Your task to perform on an android device: turn off picture-in-picture Image 0: 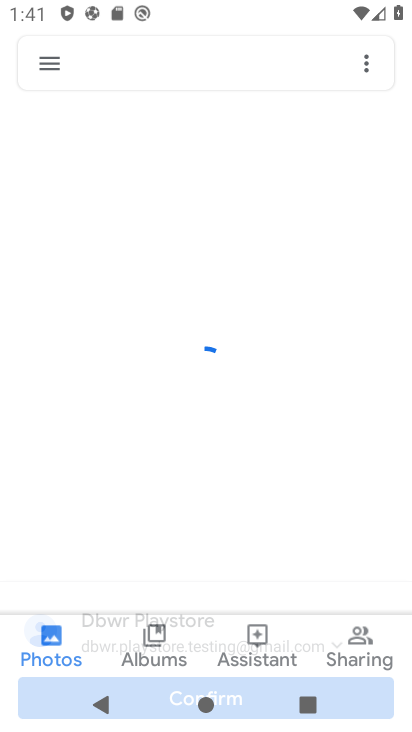
Step 0: press home button
Your task to perform on an android device: turn off picture-in-picture Image 1: 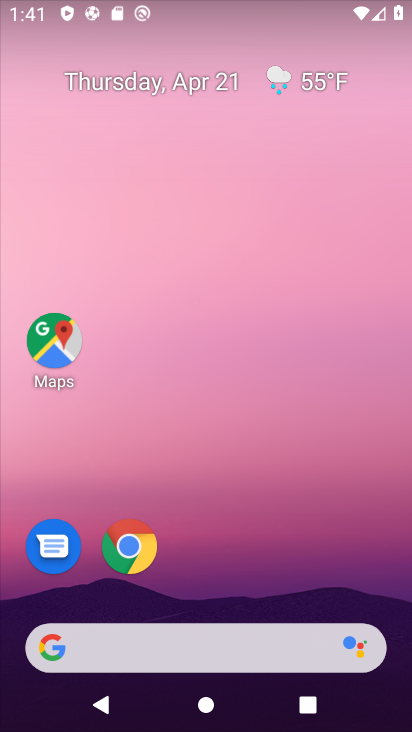
Step 1: click (128, 564)
Your task to perform on an android device: turn off picture-in-picture Image 2: 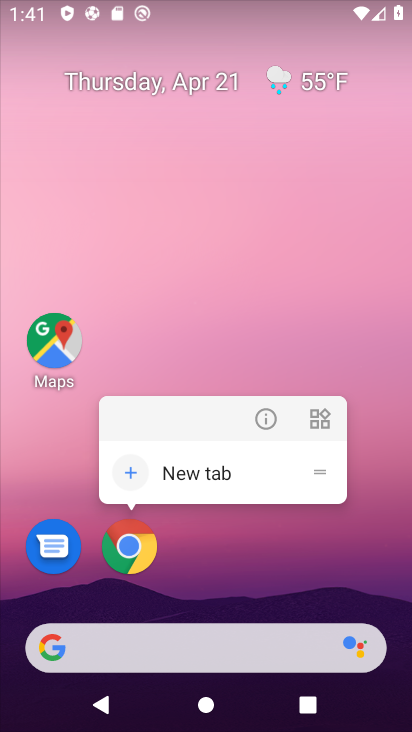
Step 2: click (271, 417)
Your task to perform on an android device: turn off picture-in-picture Image 3: 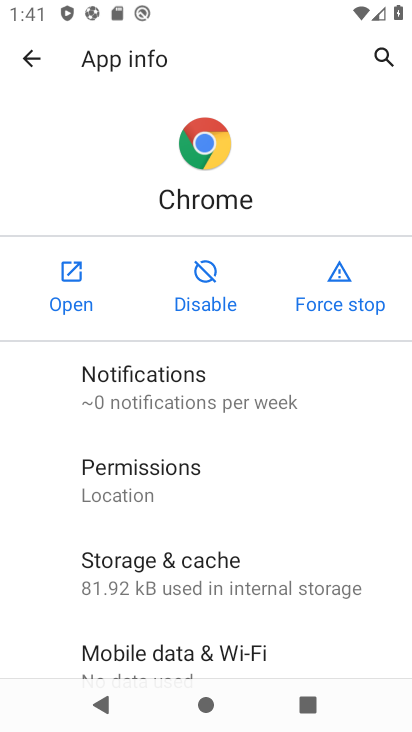
Step 3: drag from (154, 638) to (172, 322)
Your task to perform on an android device: turn off picture-in-picture Image 4: 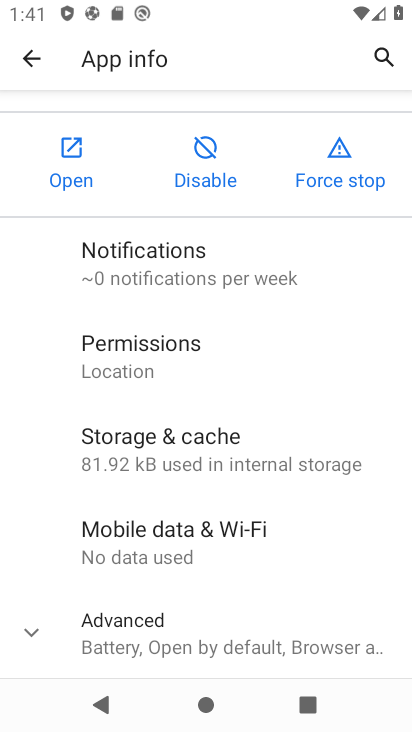
Step 4: drag from (87, 583) to (133, 159)
Your task to perform on an android device: turn off picture-in-picture Image 5: 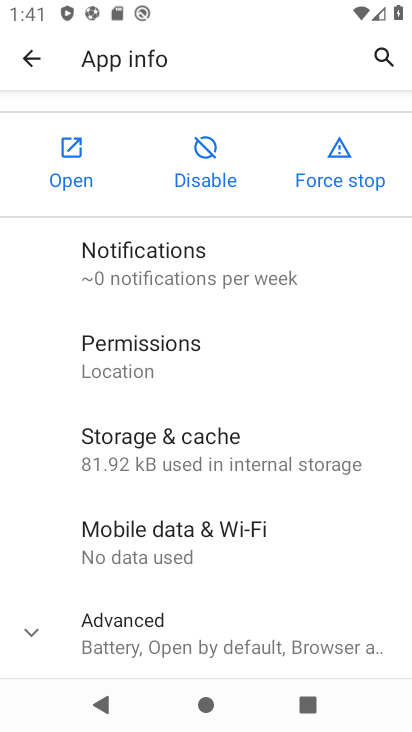
Step 5: click (113, 653)
Your task to perform on an android device: turn off picture-in-picture Image 6: 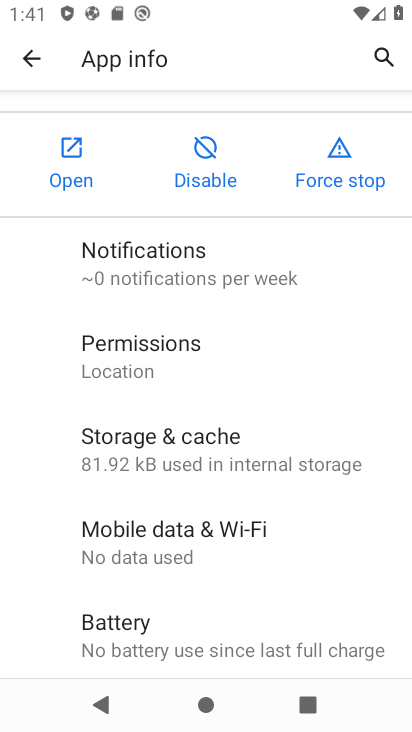
Step 6: drag from (127, 631) to (174, 217)
Your task to perform on an android device: turn off picture-in-picture Image 7: 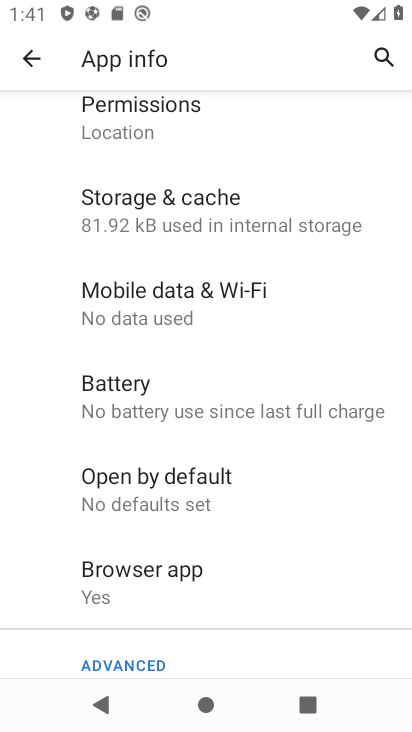
Step 7: drag from (112, 622) to (150, 349)
Your task to perform on an android device: turn off picture-in-picture Image 8: 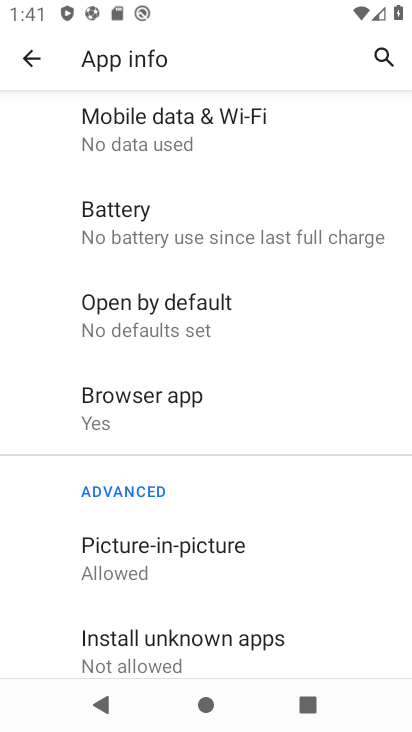
Step 8: click (101, 542)
Your task to perform on an android device: turn off picture-in-picture Image 9: 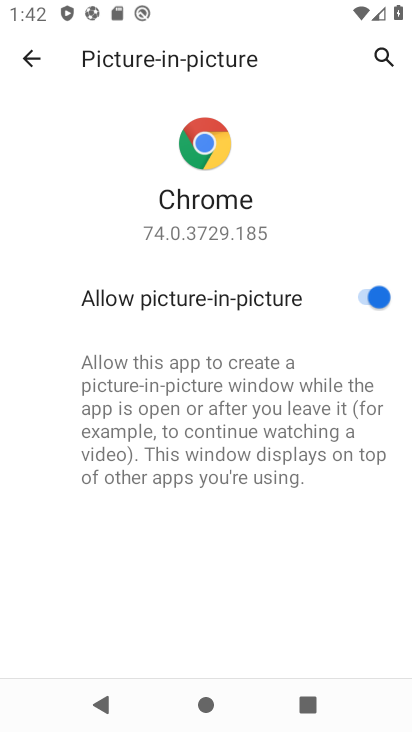
Step 9: click (365, 305)
Your task to perform on an android device: turn off picture-in-picture Image 10: 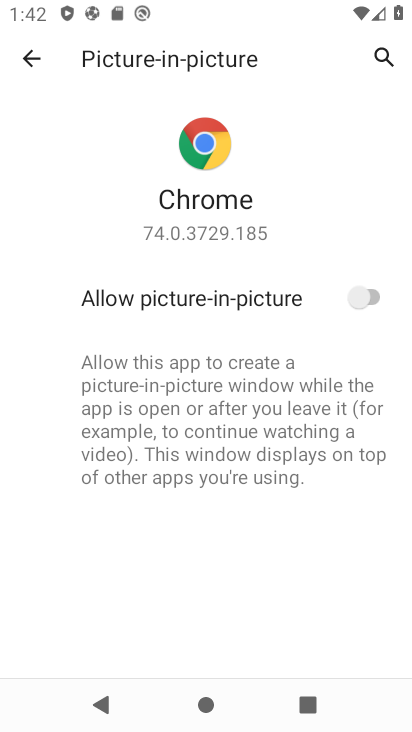
Step 10: task complete